Your task to perform on an android device: Open CNN.com Image 0: 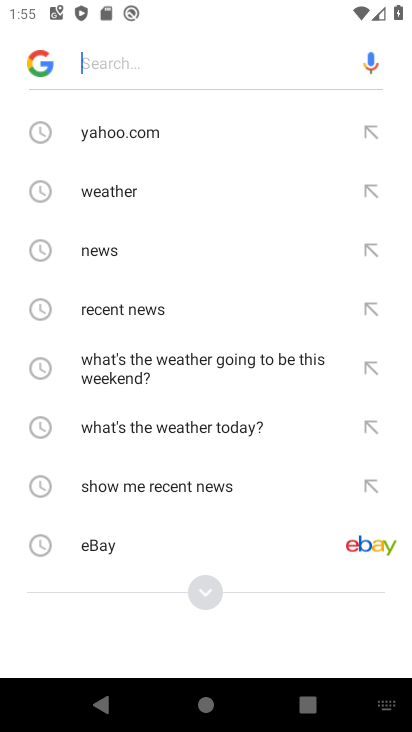
Step 0: type "cnn.com"
Your task to perform on an android device: Open CNN.com Image 1: 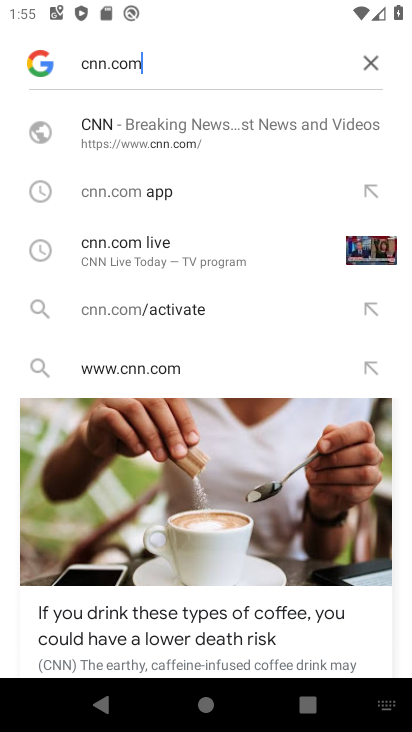
Step 1: click (144, 144)
Your task to perform on an android device: Open CNN.com Image 2: 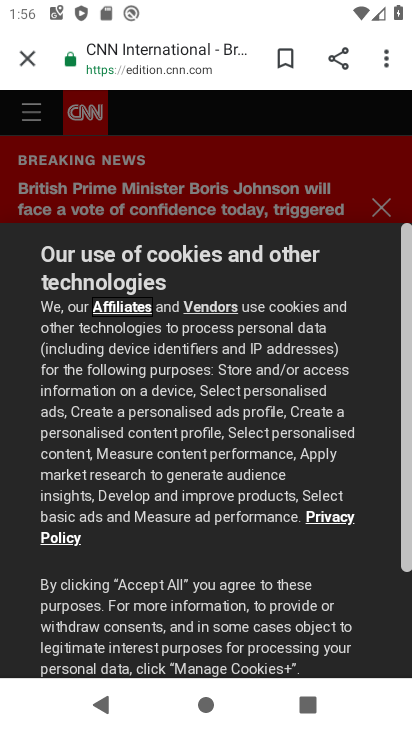
Step 2: task complete